Your task to perform on an android device: Open battery settings Image 0: 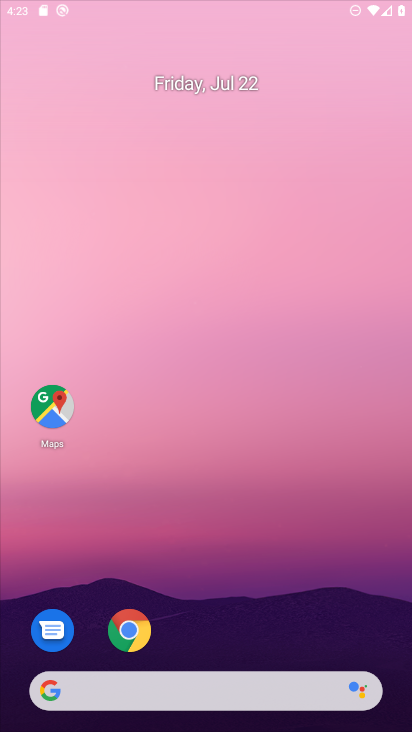
Step 0: click (410, 278)
Your task to perform on an android device: Open battery settings Image 1: 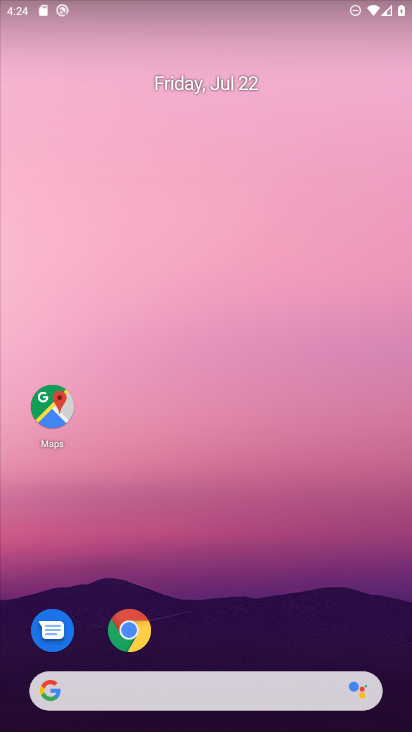
Step 1: drag from (196, 595) to (212, 3)
Your task to perform on an android device: Open battery settings Image 2: 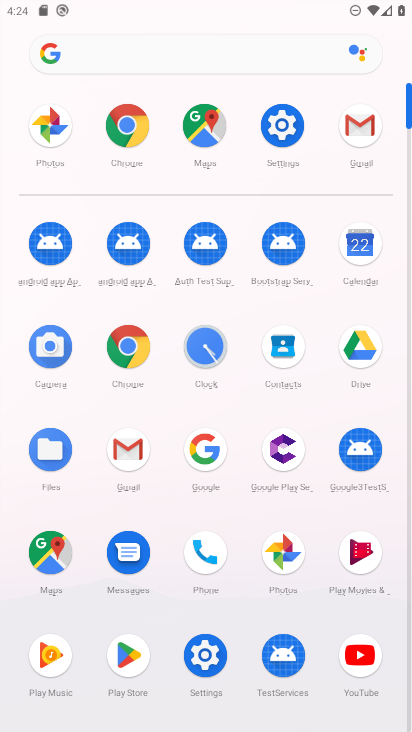
Step 2: click (208, 663)
Your task to perform on an android device: Open battery settings Image 3: 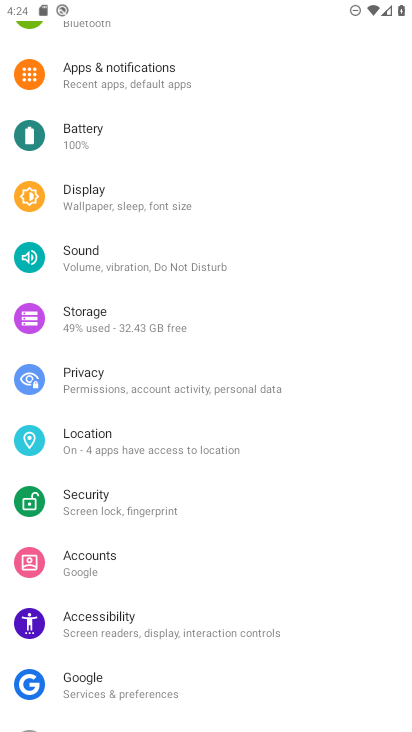
Step 3: click (83, 136)
Your task to perform on an android device: Open battery settings Image 4: 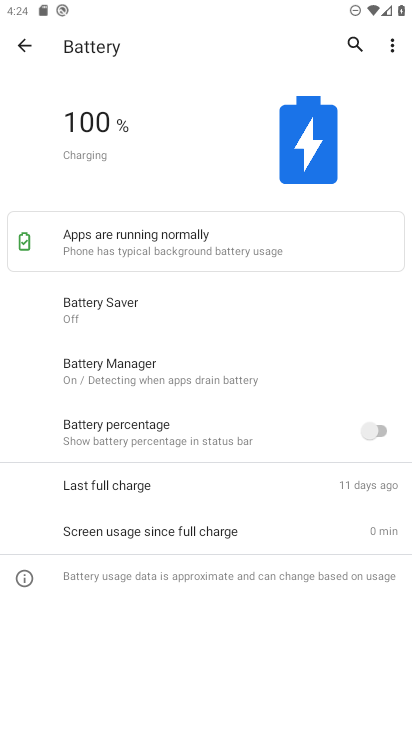
Step 4: task complete